Your task to perform on an android device: Turn off the flashlight Image 0: 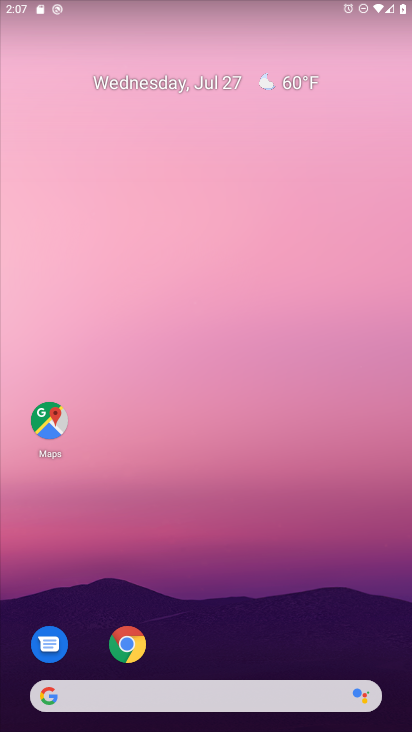
Step 0: drag from (190, 644) to (271, 177)
Your task to perform on an android device: Turn off the flashlight Image 1: 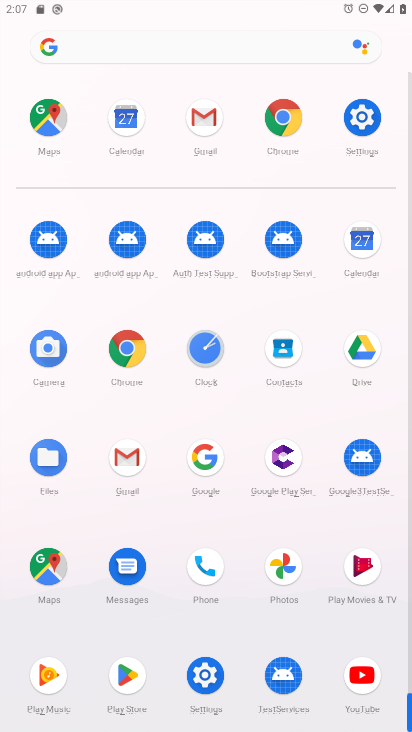
Step 1: click (357, 117)
Your task to perform on an android device: Turn off the flashlight Image 2: 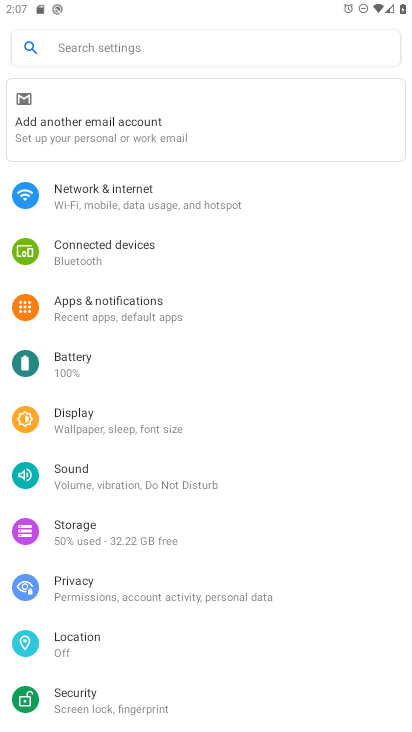
Step 2: click (106, 40)
Your task to perform on an android device: Turn off the flashlight Image 3: 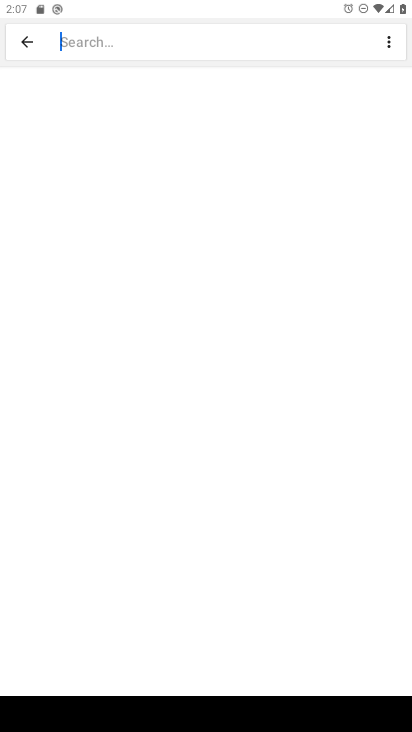
Step 3: type "flashlight"
Your task to perform on an android device: Turn off the flashlight Image 4: 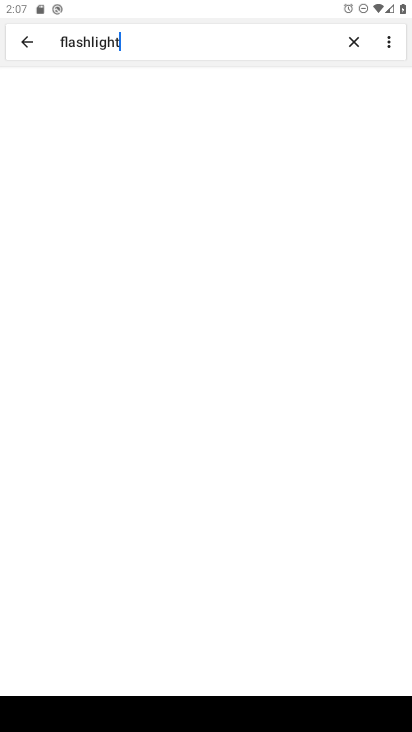
Step 4: type ""
Your task to perform on an android device: Turn off the flashlight Image 5: 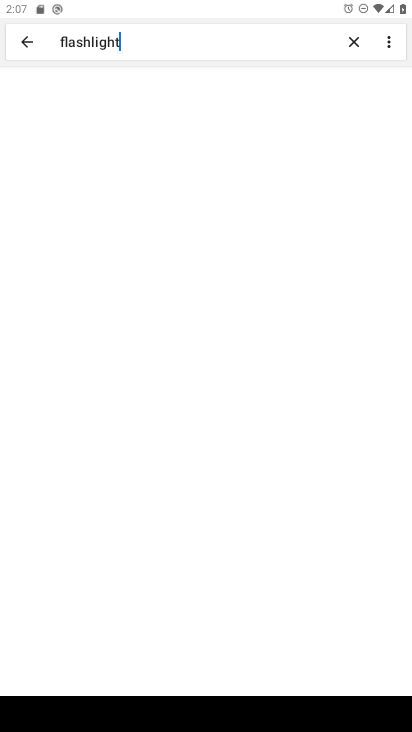
Step 5: click (114, 96)
Your task to perform on an android device: Turn off the flashlight Image 6: 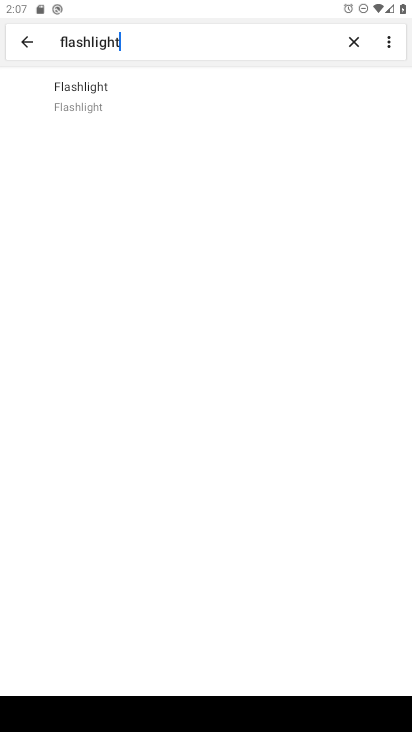
Step 6: click (112, 98)
Your task to perform on an android device: Turn off the flashlight Image 7: 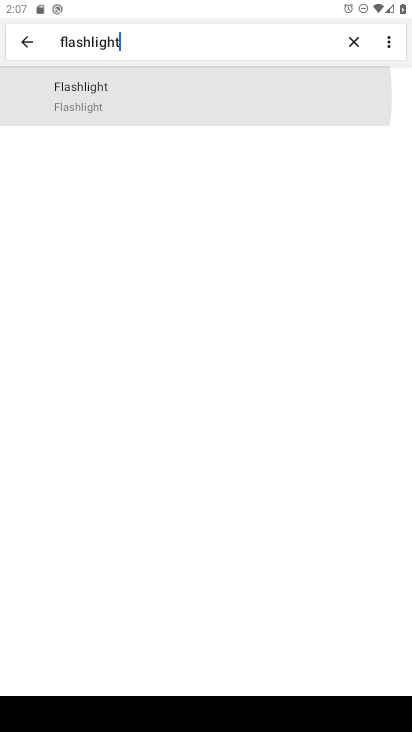
Step 7: click (112, 98)
Your task to perform on an android device: Turn off the flashlight Image 8: 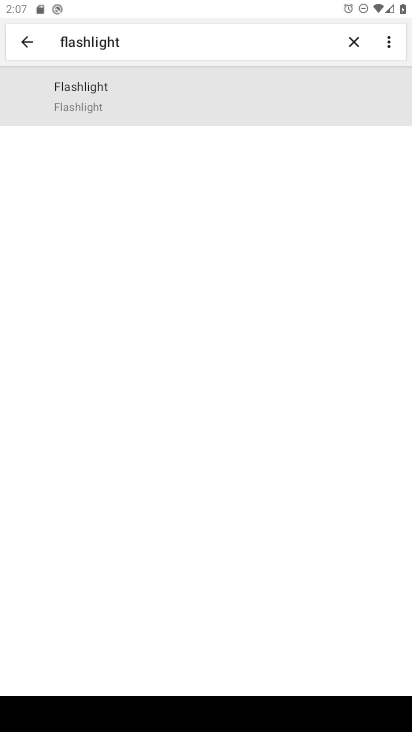
Step 8: click (112, 98)
Your task to perform on an android device: Turn off the flashlight Image 9: 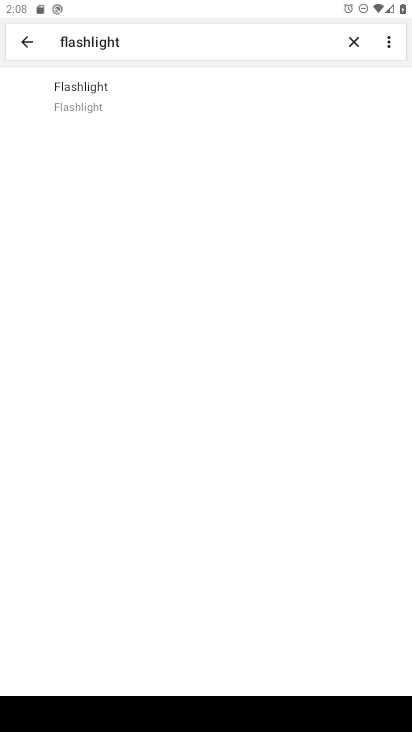
Step 9: task complete